Your task to perform on an android device: Search for "apple airpods pro" on walmart, select the first entry, add it to the cart, then select checkout. Image 0: 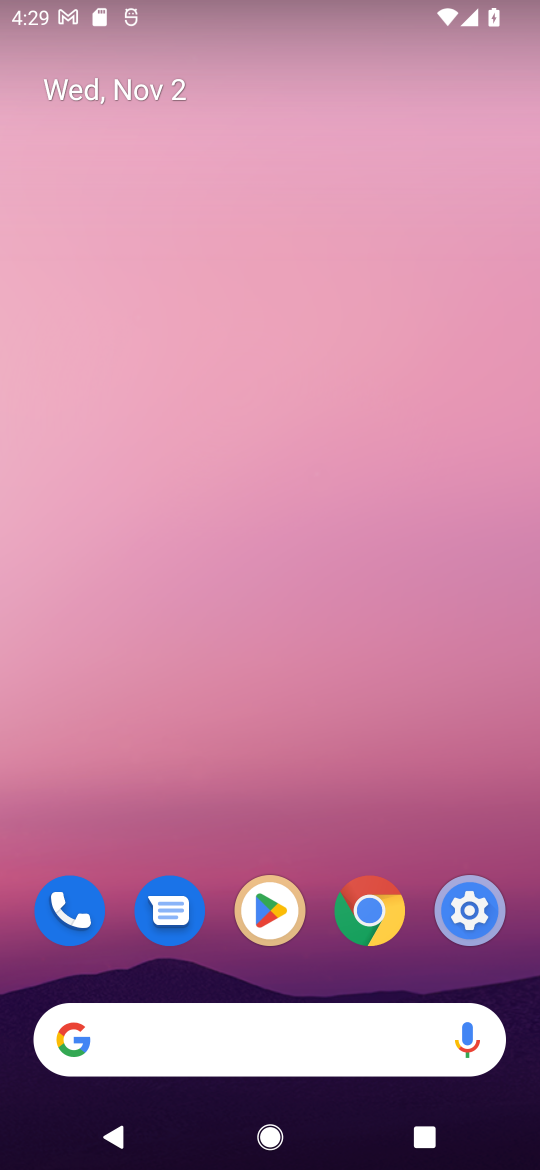
Step 0: click (227, 1042)
Your task to perform on an android device: Search for "apple airpods pro" on walmart, select the first entry, add it to the cart, then select checkout. Image 1: 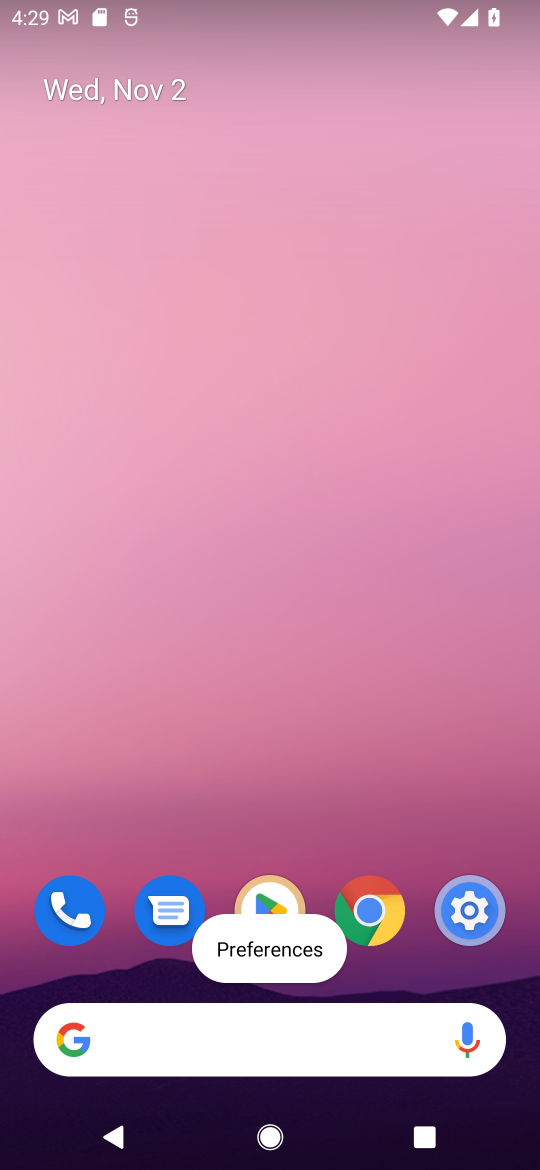
Step 1: click (227, 1042)
Your task to perform on an android device: Search for "apple airpods pro" on walmart, select the first entry, add it to the cart, then select checkout. Image 2: 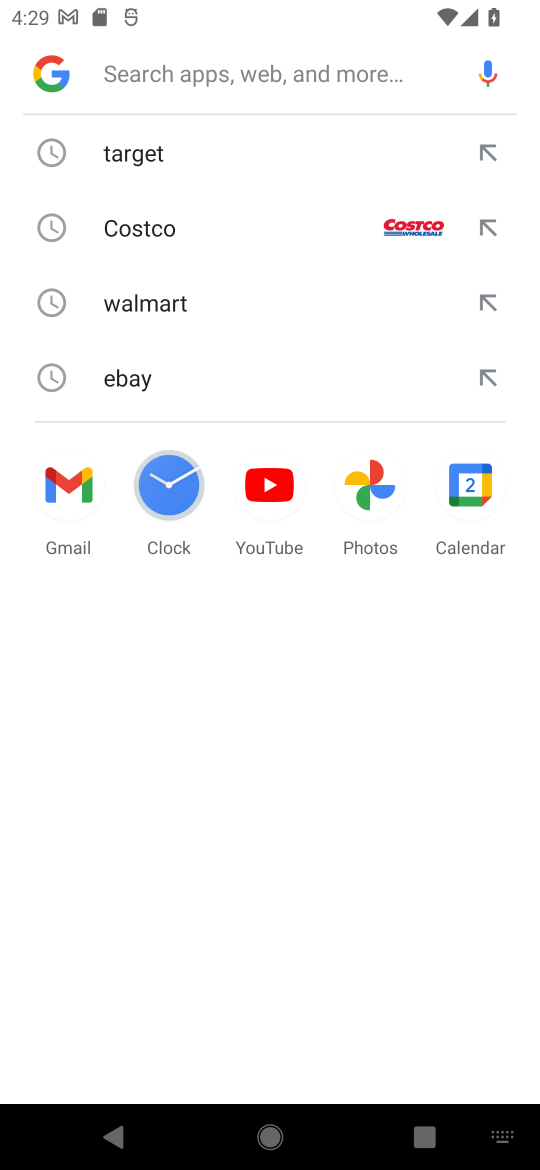
Step 2: click (164, 305)
Your task to perform on an android device: Search for "apple airpods pro" on walmart, select the first entry, add it to the cart, then select checkout. Image 3: 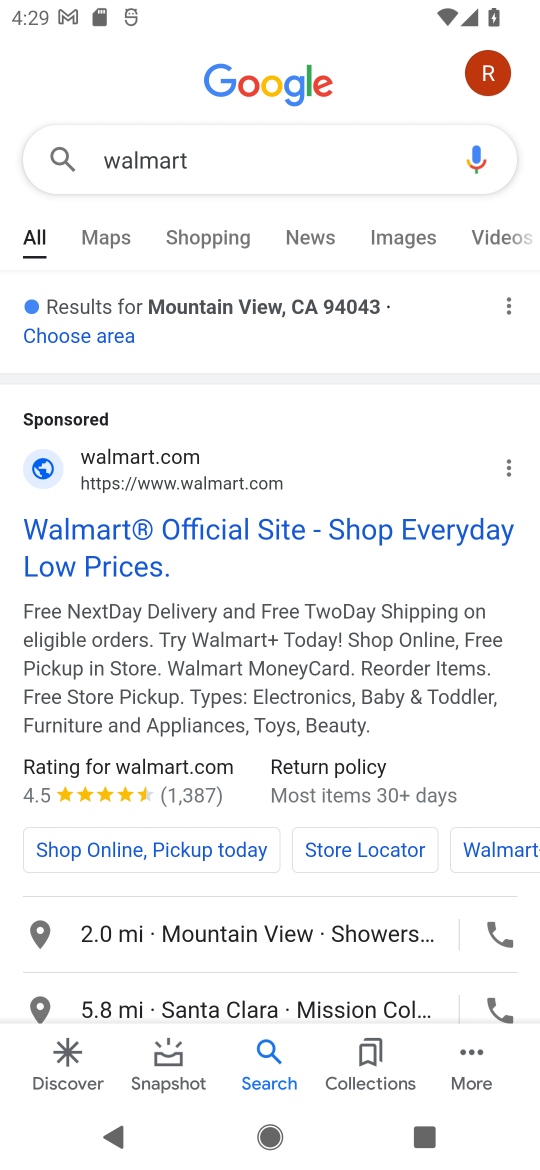
Step 3: click (134, 511)
Your task to perform on an android device: Search for "apple airpods pro" on walmart, select the first entry, add it to the cart, then select checkout. Image 4: 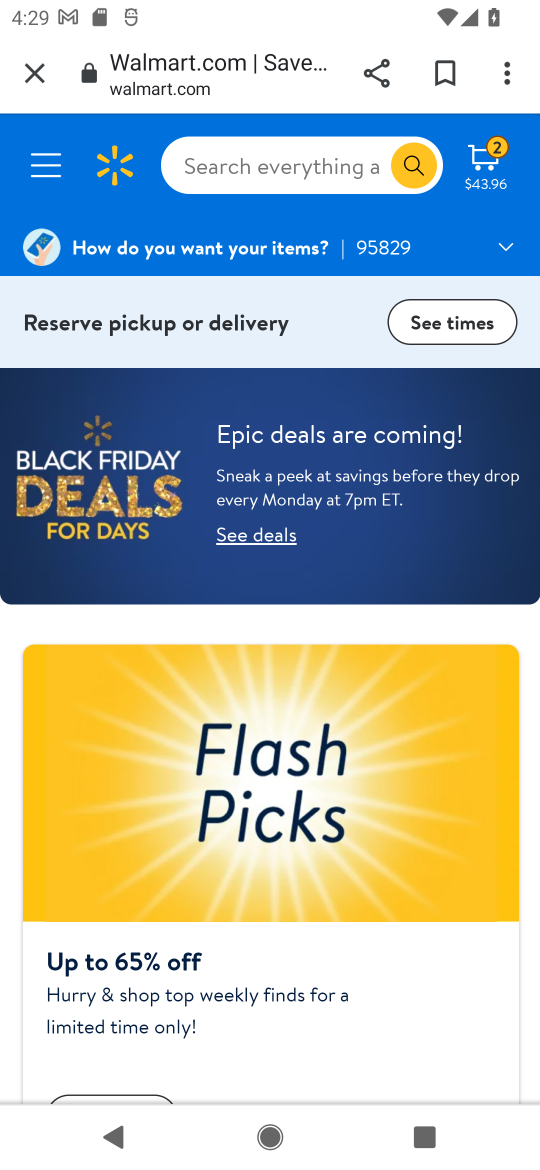
Step 4: click (217, 141)
Your task to perform on an android device: Search for "apple airpods pro" on walmart, select the first entry, add it to the cart, then select checkout. Image 5: 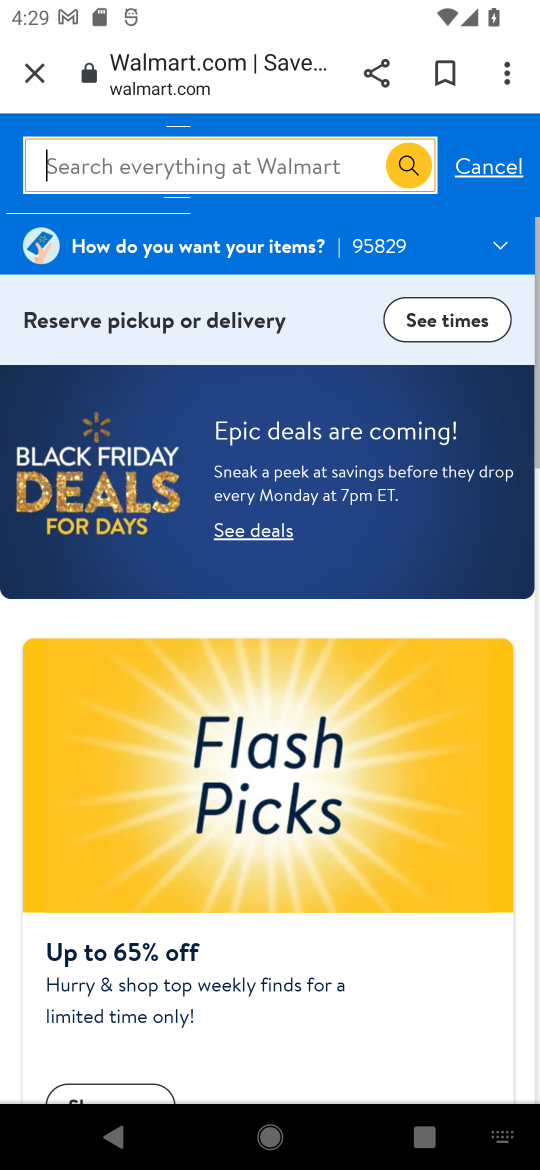
Step 5: click (226, 159)
Your task to perform on an android device: Search for "apple airpods pro" on walmart, select the first entry, add it to the cart, then select checkout. Image 6: 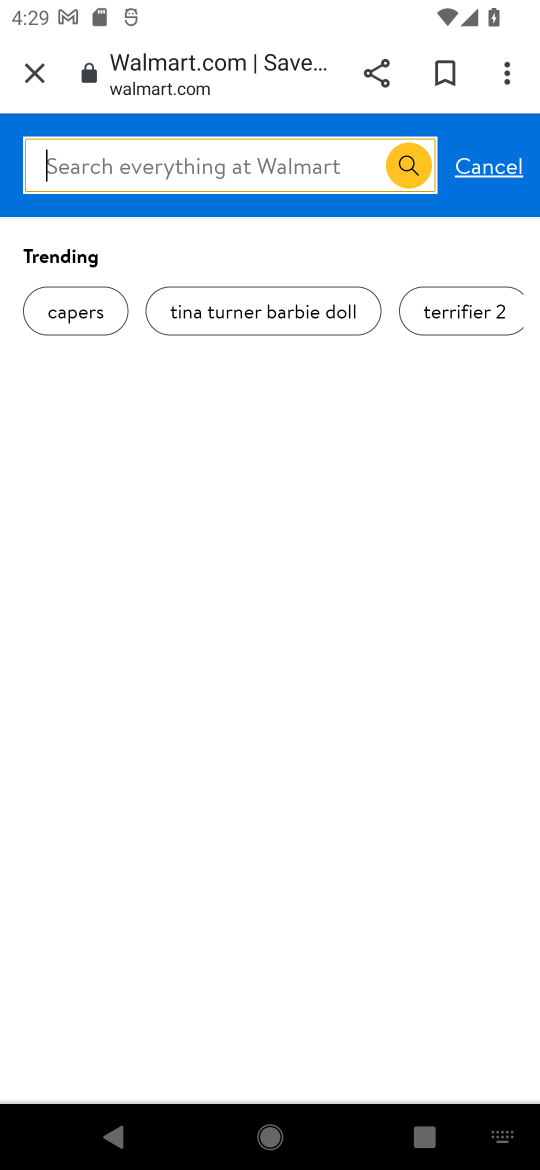
Step 6: click (226, 159)
Your task to perform on an android device: Search for "apple airpods pro" on walmart, select the first entry, add it to the cart, then select checkout. Image 7: 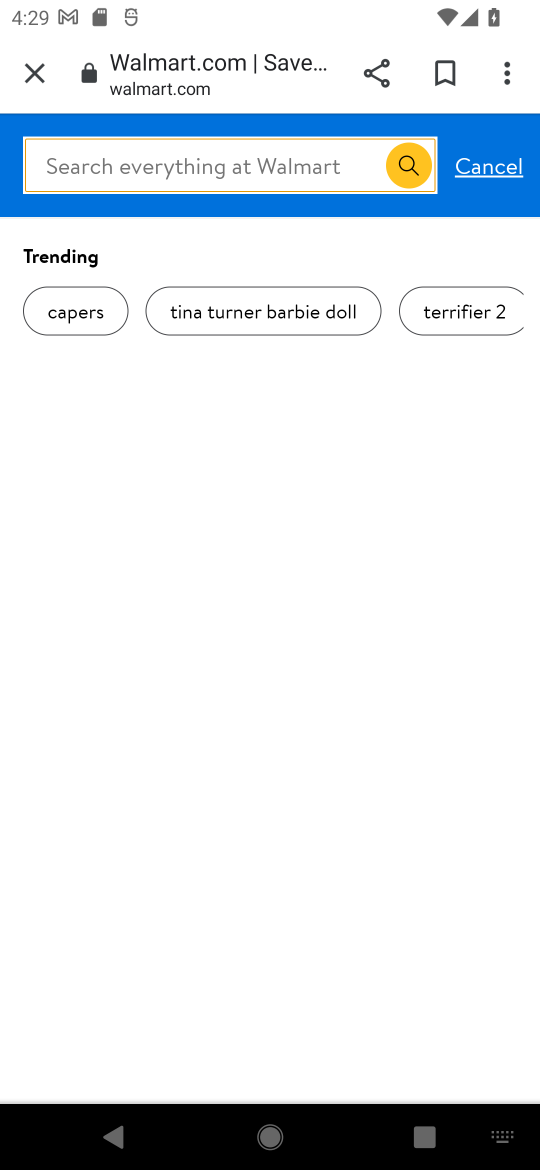
Step 7: type "apple airpods pro"
Your task to perform on an android device: Search for "apple airpods pro" on walmart, select the first entry, add it to the cart, then select checkout. Image 8: 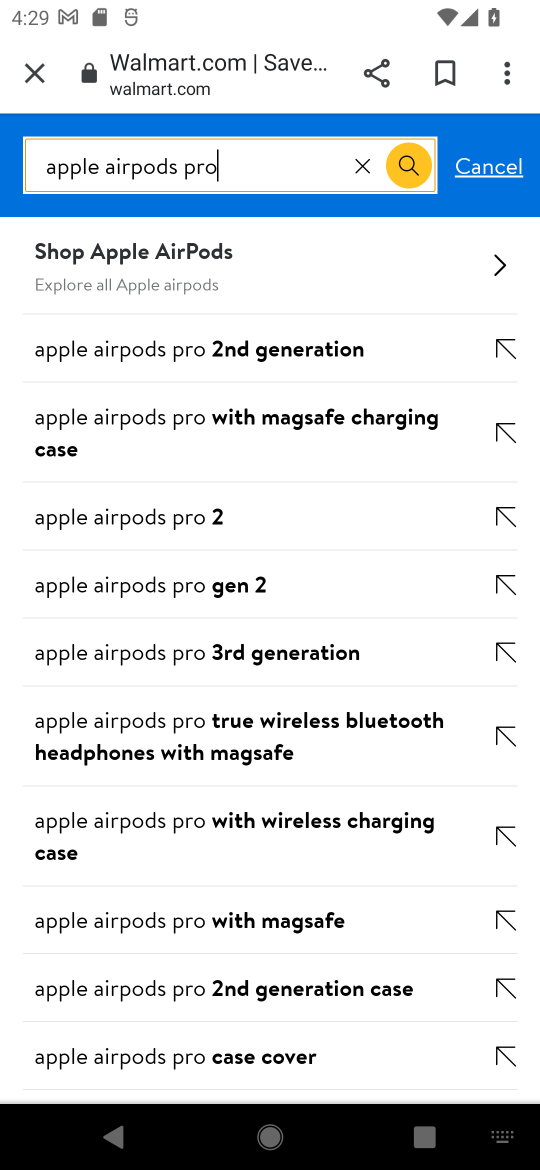
Step 8: type ""
Your task to perform on an android device: Search for "apple airpods pro" on walmart, select the first entry, add it to the cart, then select checkout. Image 9: 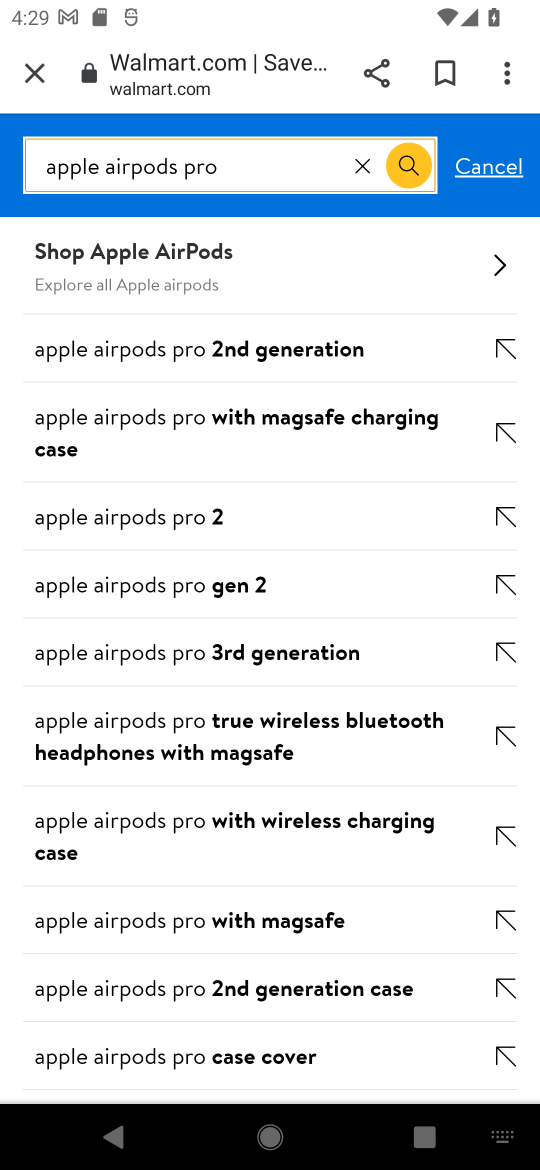
Step 9: press enter
Your task to perform on an android device: Search for "apple airpods pro" on walmart, select the first entry, add it to the cart, then select checkout. Image 10: 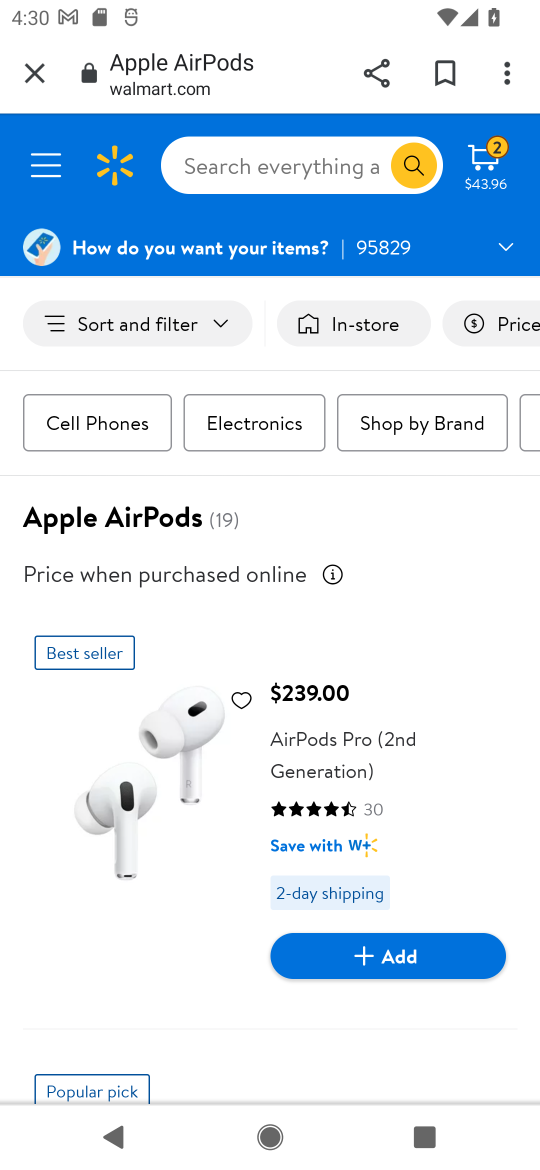
Step 10: click (480, 965)
Your task to perform on an android device: Search for "apple airpods pro" on walmart, select the first entry, add it to the cart, then select checkout. Image 11: 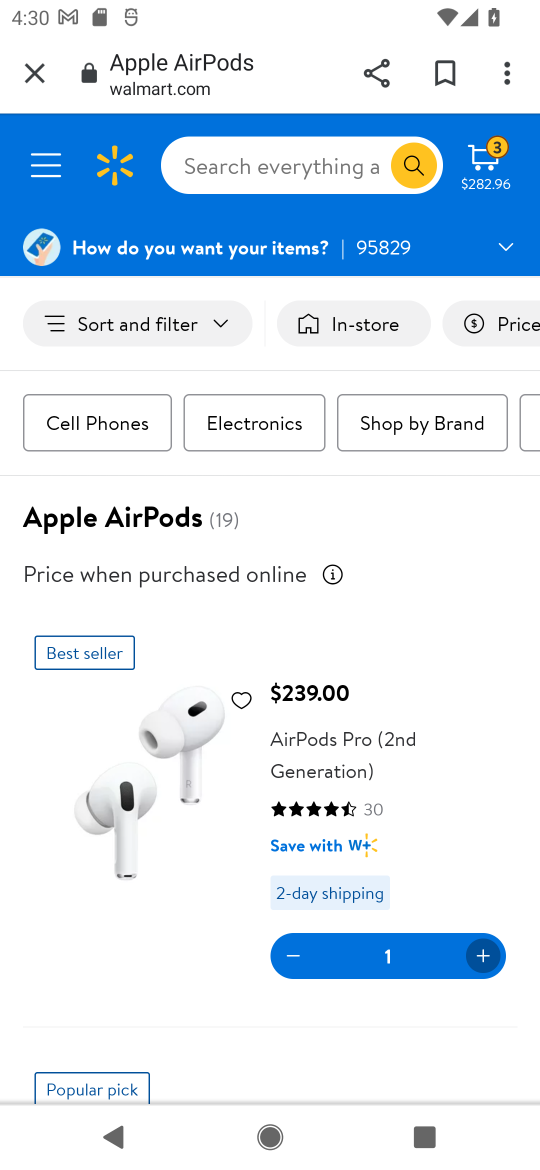
Step 11: click (493, 159)
Your task to perform on an android device: Search for "apple airpods pro" on walmart, select the first entry, add it to the cart, then select checkout. Image 12: 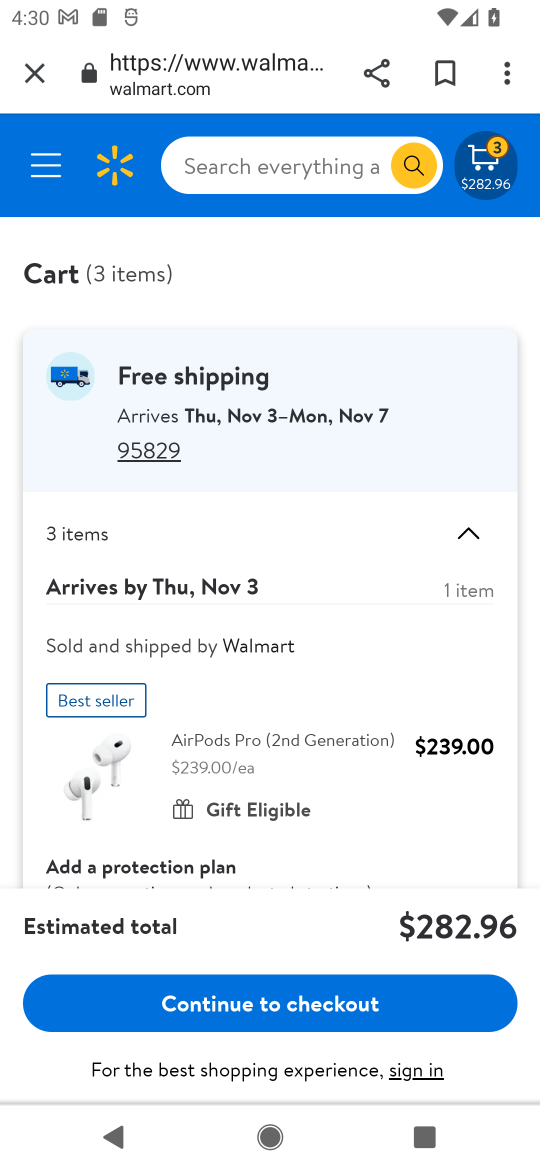
Step 12: click (266, 1005)
Your task to perform on an android device: Search for "apple airpods pro" on walmart, select the first entry, add it to the cart, then select checkout. Image 13: 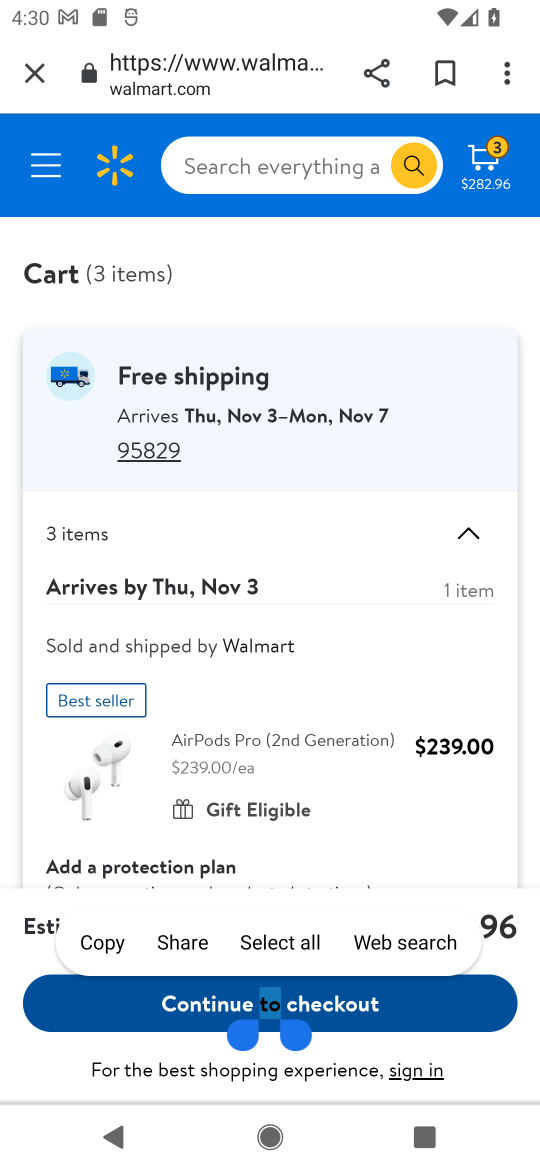
Step 13: click (203, 1009)
Your task to perform on an android device: Search for "apple airpods pro" on walmart, select the first entry, add it to the cart, then select checkout. Image 14: 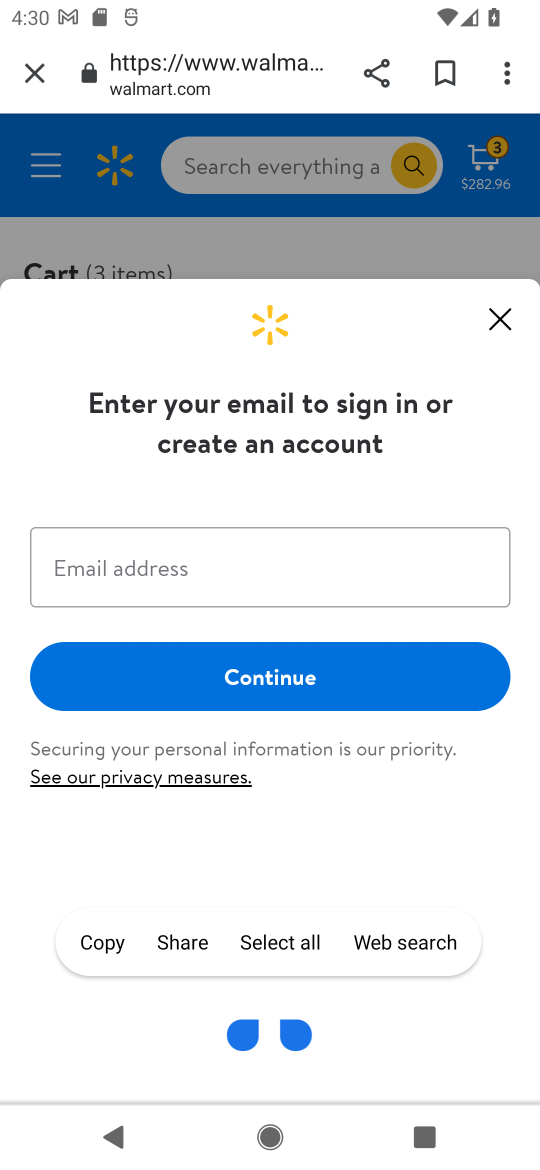
Step 14: click (467, 347)
Your task to perform on an android device: Search for "apple airpods pro" on walmart, select the first entry, add it to the cart, then select checkout. Image 15: 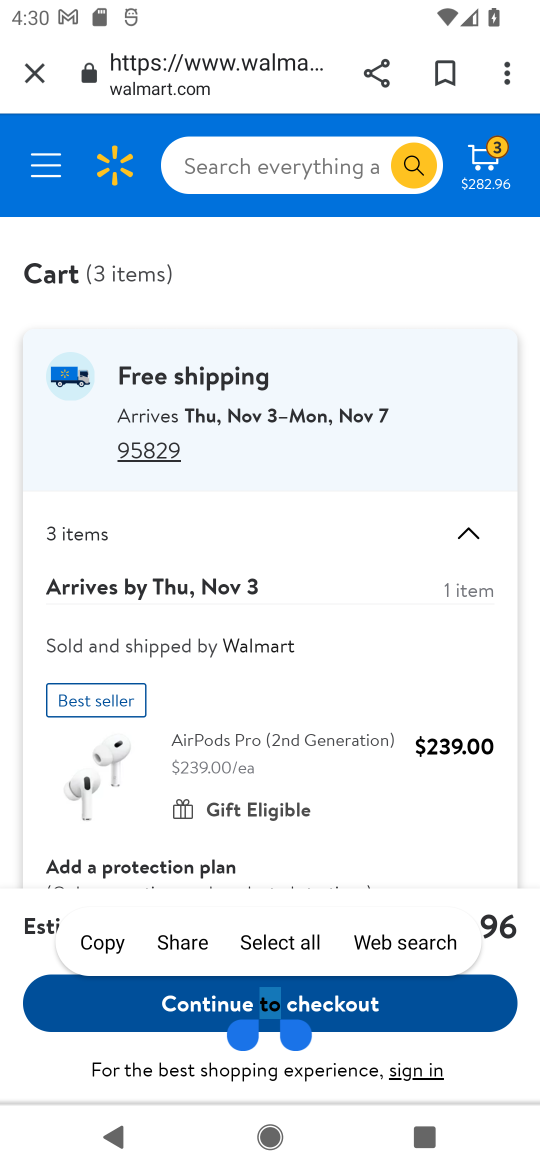
Step 15: click (369, 1007)
Your task to perform on an android device: Search for "apple airpods pro" on walmart, select the first entry, add it to the cart, then select checkout. Image 16: 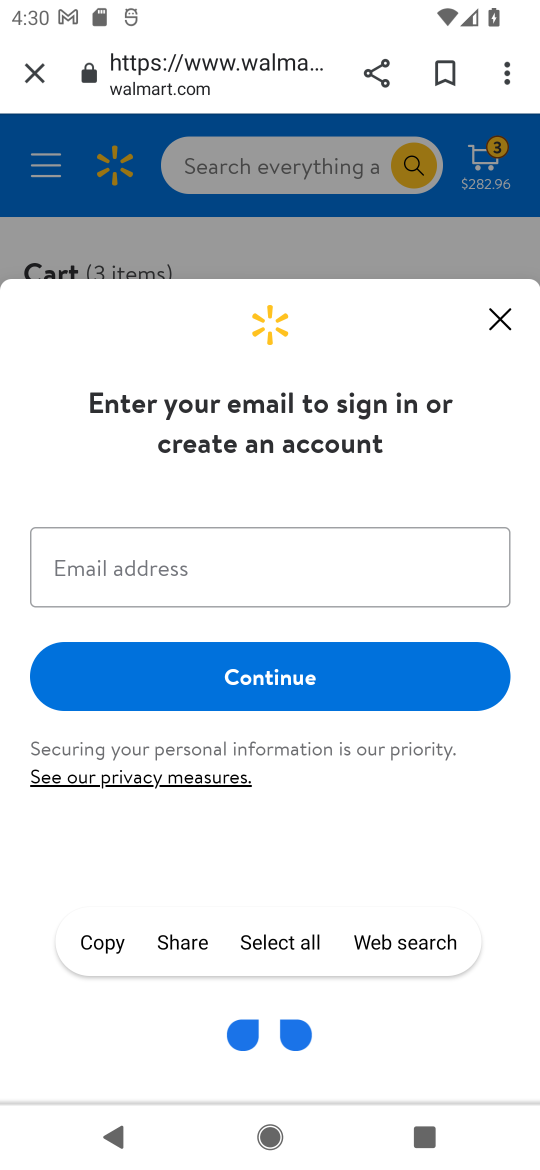
Step 16: task complete